Your task to perform on an android device: change the upload size in google photos Image 0: 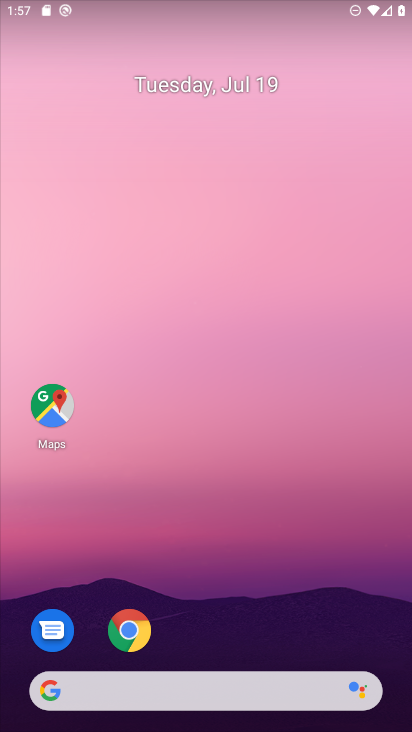
Step 0: press home button
Your task to perform on an android device: change the upload size in google photos Image 1: 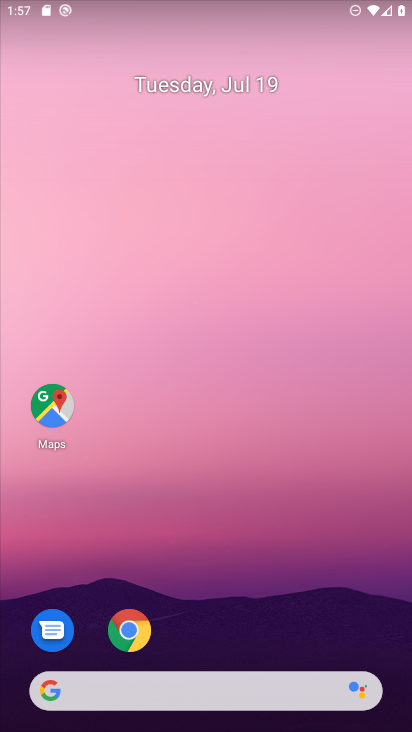
Step 1: drag from (135, 693) to (272, 13)
Your task to perform on an android device: change the upload size in google photos Image 2: 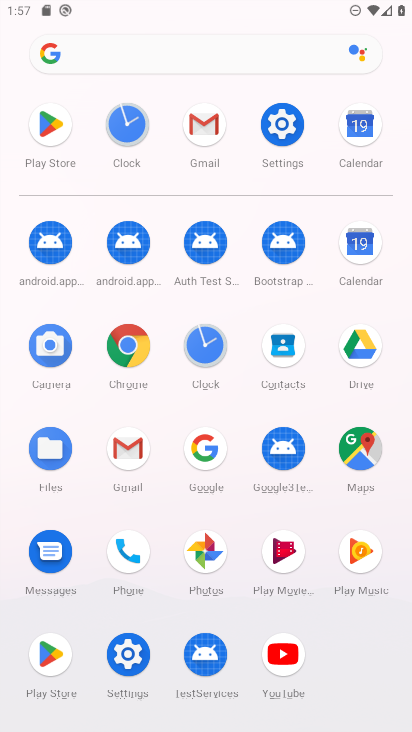
Step 2: click (203, 558)
Your task to perform on an android device: change the upload size in google photos Image 3: 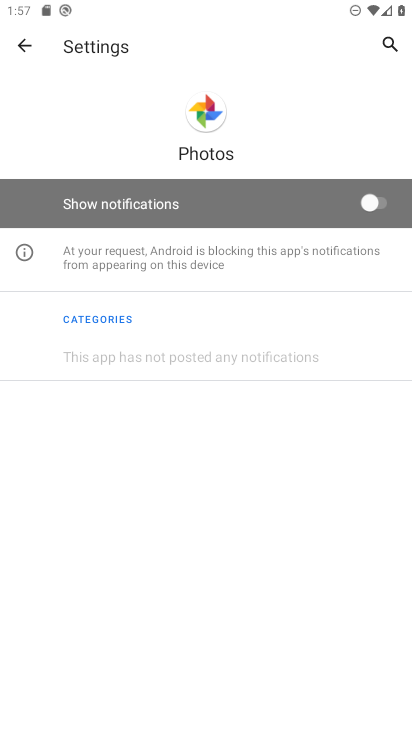
Step 3: click (25, 53)
Your task to perform on an android device: change the upload size in google photos Image 4: 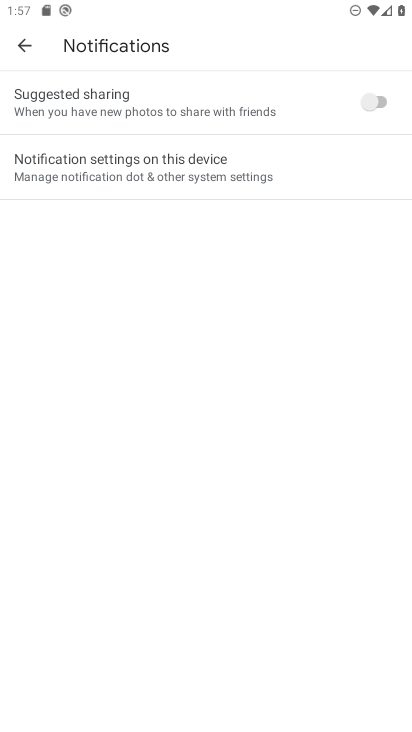
Step 4: click (23, 45)
Your task to perform on an android device: change the upload size in google photos Image 5: 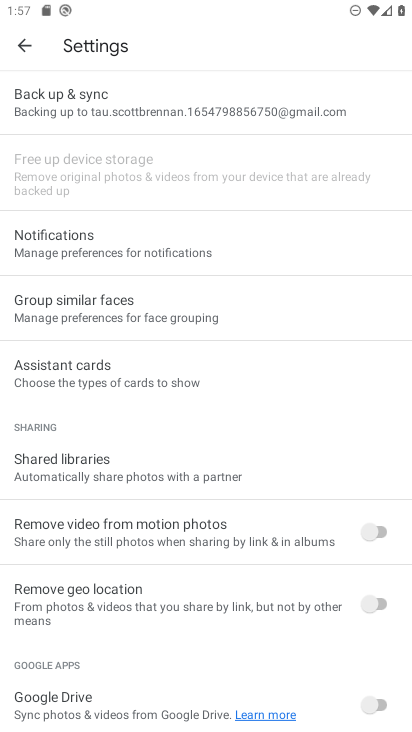
Step 5: click (159, 109)
Your task to perform on an android device: change the upload size in google photos Image 6: 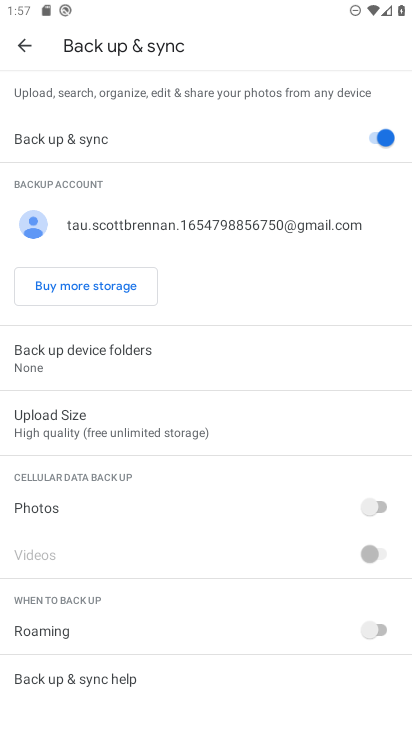
Step 6: click (113, 416)
Your task to perform on an android device: change the upload size in google photos Image 7: 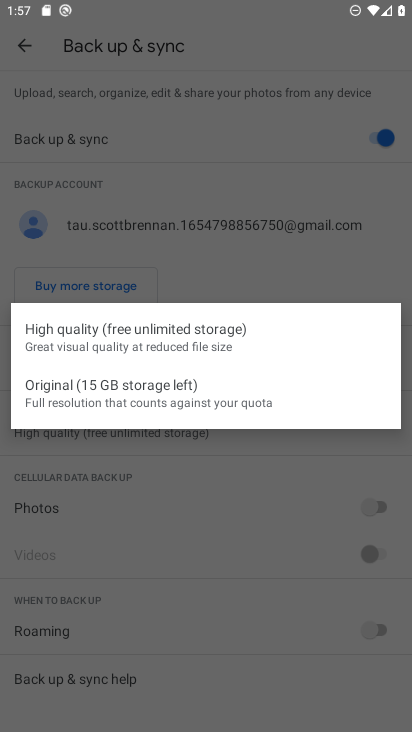
Step 7: click (82, 392)
Your task to perform on an android device: change the upload size in google photos Image 8: 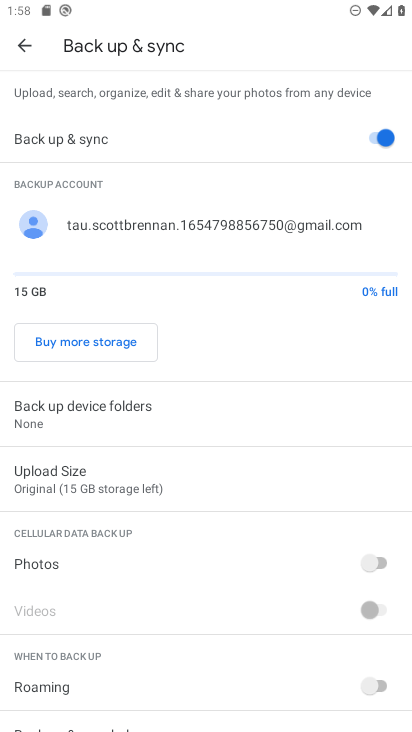
Step 8: task complete